Your task to perform on an android device: What is the news today? Image 0: 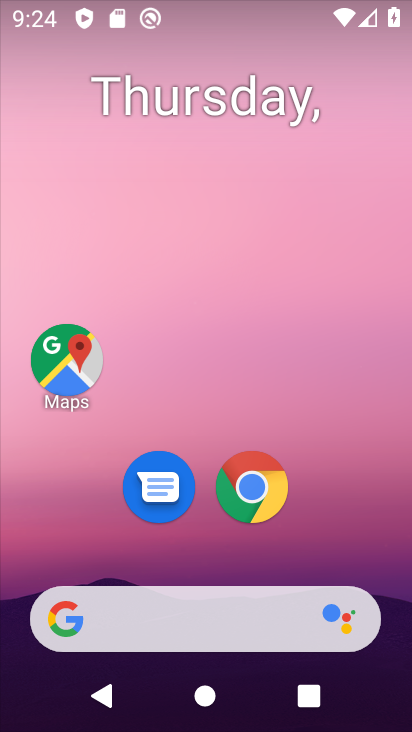
Step 0: click (261, 502)
Your task to perform on an android device: What is the news today? Image 1: 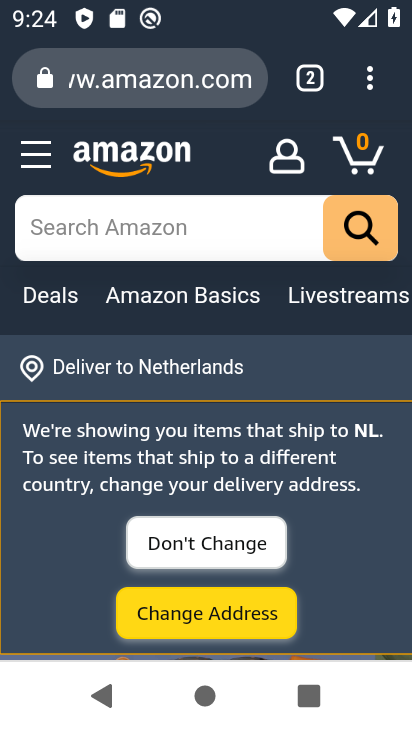
Step 1: click (320, 91)
Your task to perform on an android device: What is the news today? Image 2: 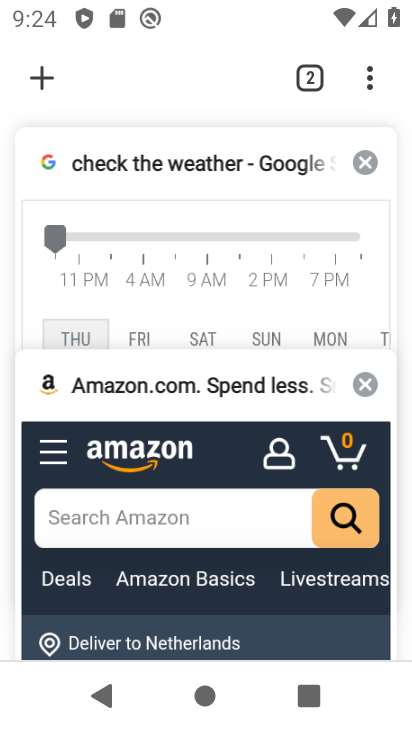
Step 2: click (41, 76)
Your task to perform on an android device: What is the news today? Image 3: 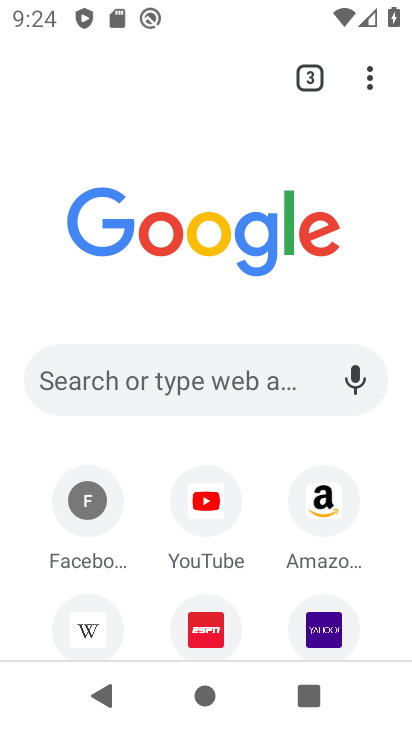
Step 3: click (108, 378)
Your task to perform on an android device: What is the news today? Image 4: 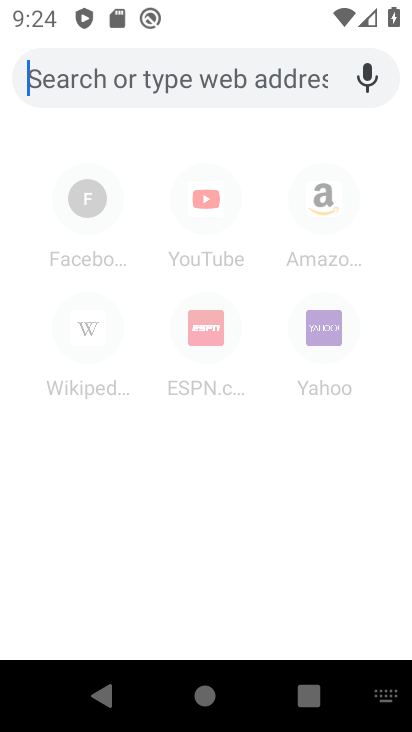
Step 4: type "what is the news today?"
Your task to perform on an android device: What is the news today? Image 5: 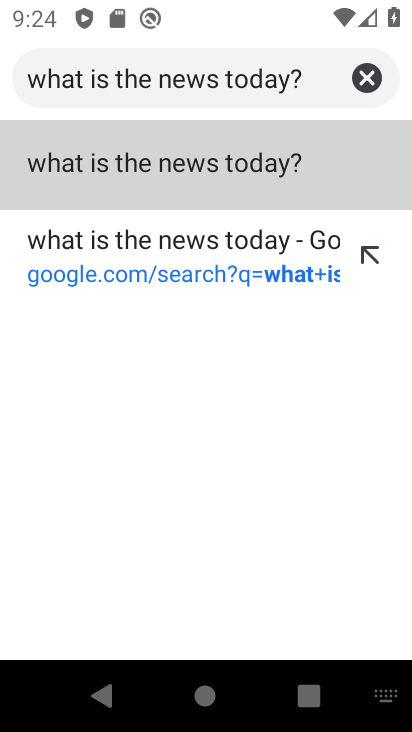
Step 5: click (275, 163)
Your task to perform on an android device: What is the news today? Image 6: 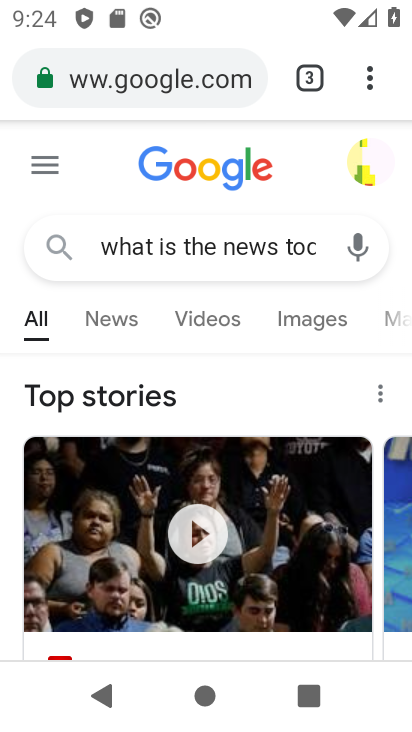
Step 6: click (101, 320)
Your task to perform on an android device: What is the news today? Image 7: 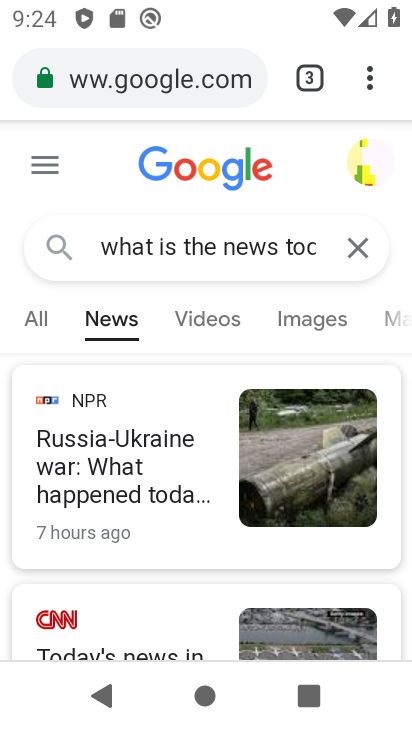
Step 7: task complete